Your task to perform on an android device: Toggle the flashlight Image 0: 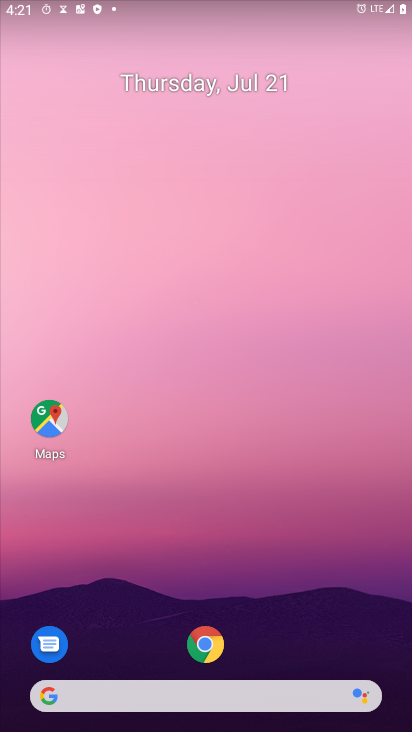
Step 0: press home button
Your task to perform on an android device: Toggle the flashlight Image 1: 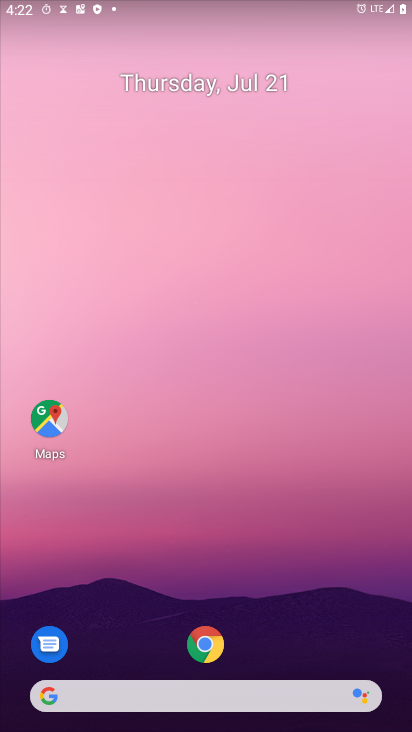
Step 1: task complete